Your task to perform on an android device: turn on sleep mode Image 0: 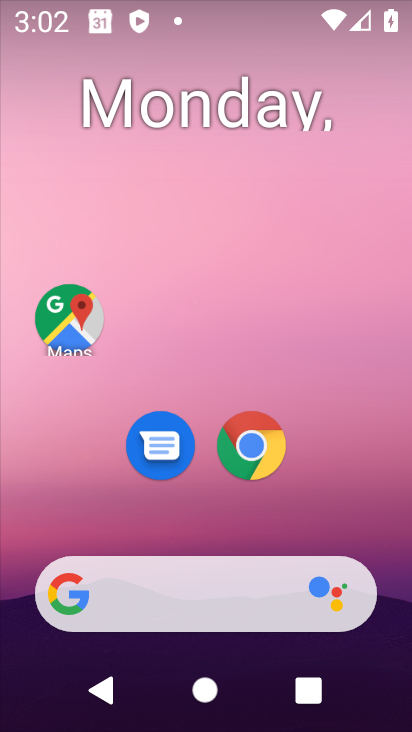
Step 0: drag from (315, 513) to (245, 119)
Your task to perform on an android device: turn on sleep mode Image 1: 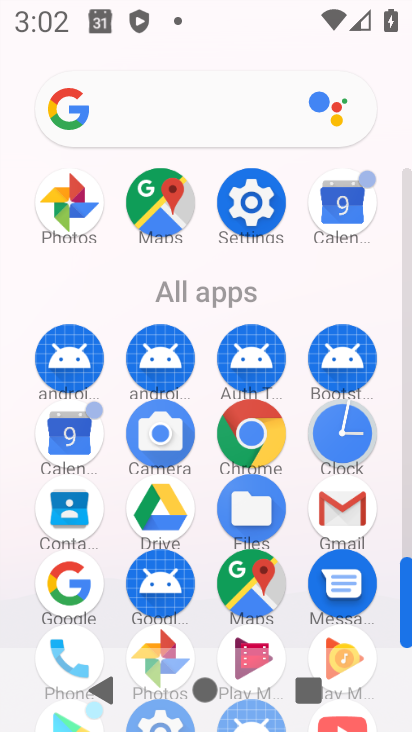
Step 1: click (236, 215)
Your task to perform on an android device: turn on sleep mode Image 2: 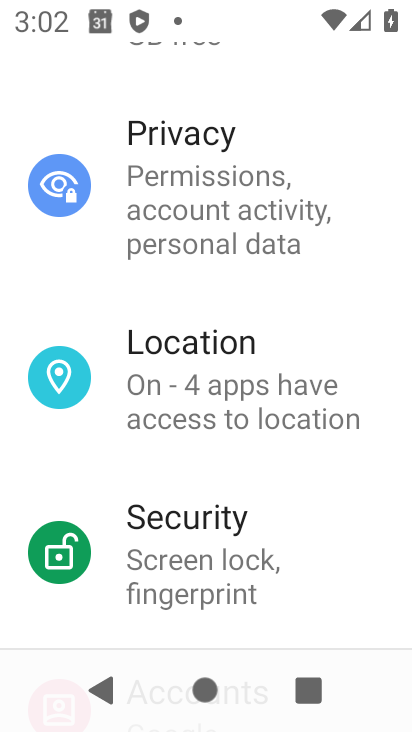
Step 2: drag from (210, 287) to (217, 141)
Your task to perform on an android device: turn on sleep mode Image 3: 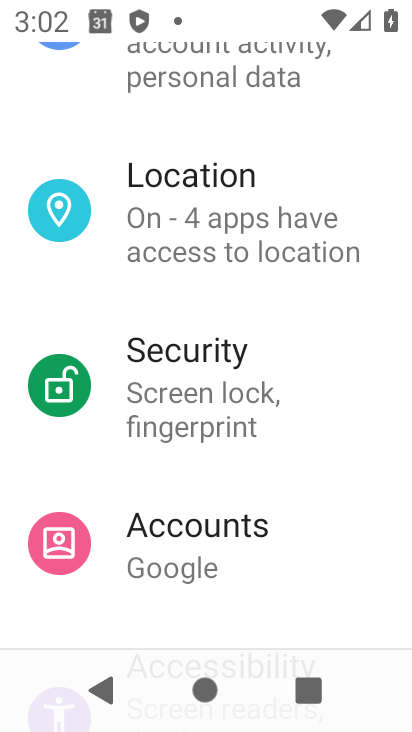
Step 3: drag from (194, 476) to (200, 351)
Your task to perform on an android device: turn on sleep mode Image 4: 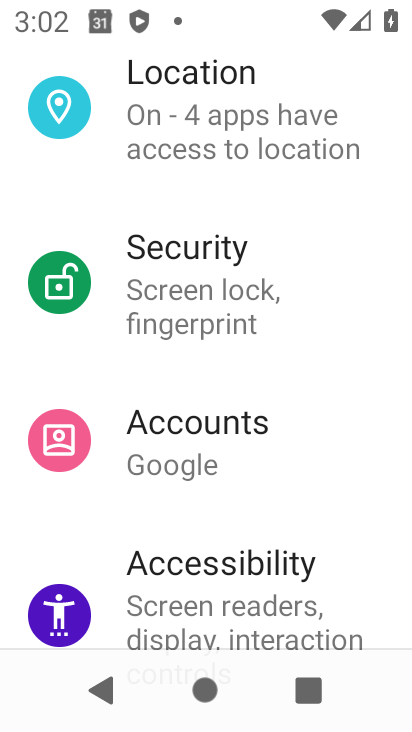
Step 4: drag from (186, 504) to (181, 372)
Your task to perform on an android device: turn on sleep mode Image 5: 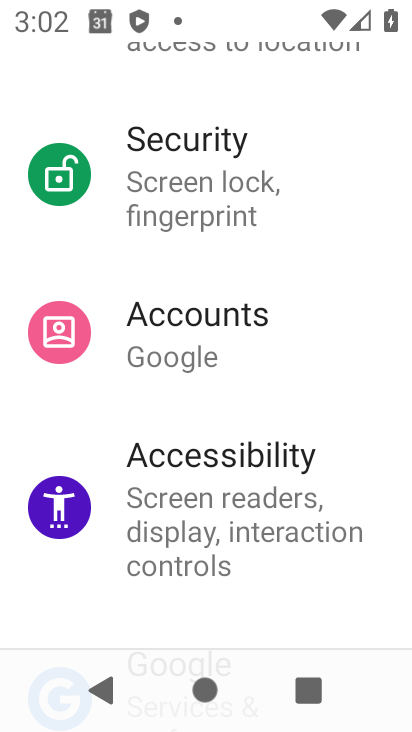
Step 5: drag from (241, 527) to (232, 412)
Your task to perform on an android device: turn on sleep mode Image 6: 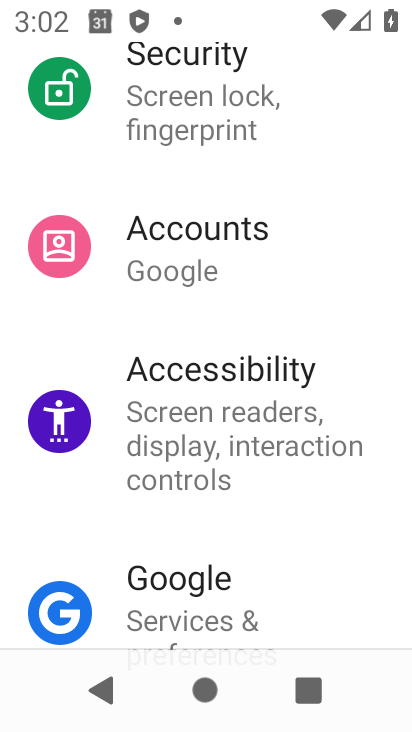
Step 6: drag from (196, 538) to (188, 377)
Your task to perform on an android device: turn on sleep mode Image 7: 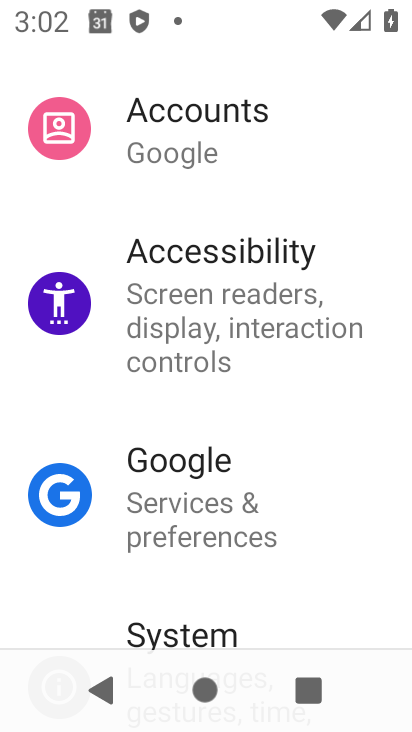
Step 7: drag from (185, 511) to (184, 377)
Your task to perform on an android device: turn on sleep mode Image 8: 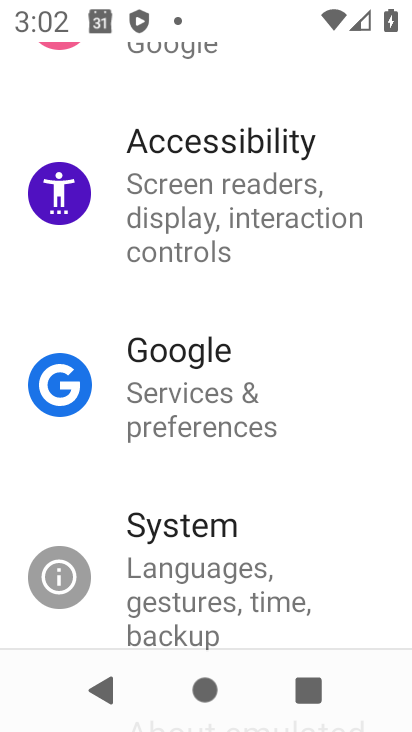
Step 8: drag from (216, 538) to (209, 415)
Your task to perform on an android device: turn on sleep mode Image 9: 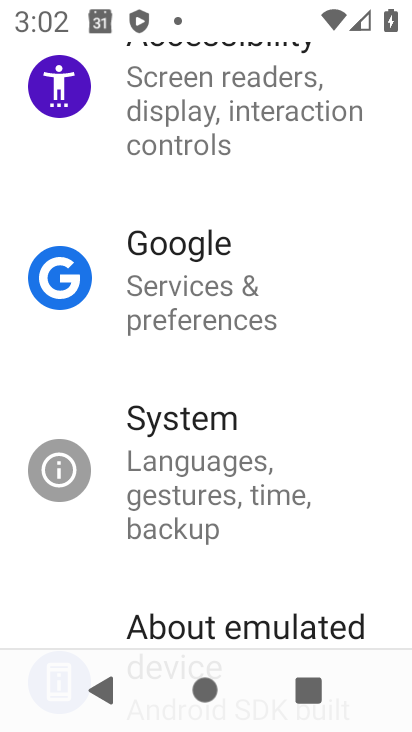
Step 9: drag from (224, 567) to (236, 362)
Your task to perform on an android device: turn on sleep mode Image 10: 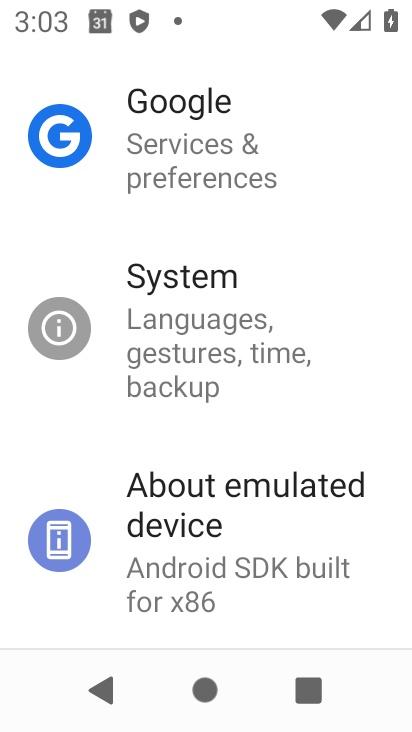
Step 10: drag from (217, 417) to (257, 542)
Your task to perform on an android device: turn on sleep mode Image 11: 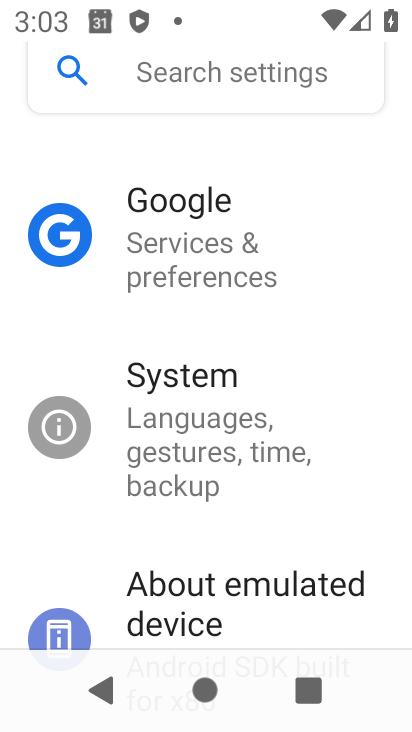
Step 11: drag from (221, 411) to (239, 540)
Your task to perform on an android device: turn on sleep mode Image 12: 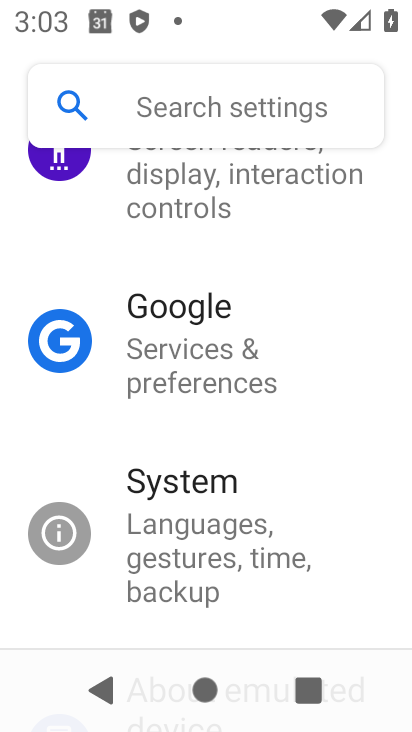
Step 12: drag from (225, 421) to (256, 557)
Your task to perform on an android device: turn on sleep mode Image 13: 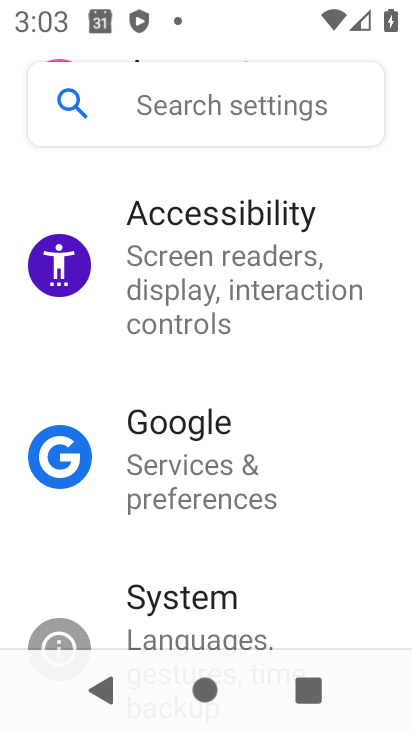
Step 13: drag from (237, 456) to (270, 601)
Your task to perform on an android device: turn on sleep mode Image 14: 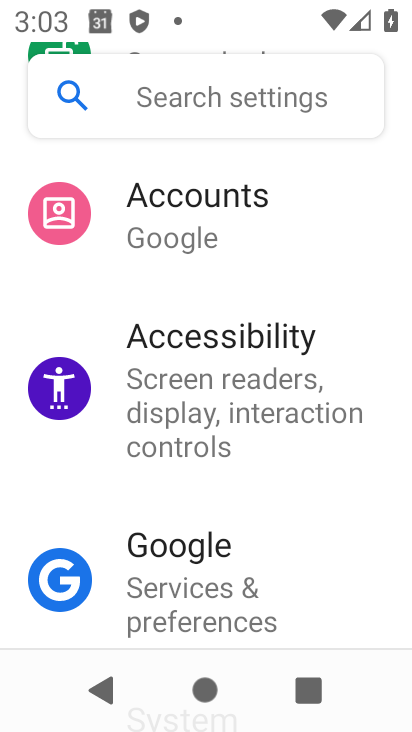
Step 14: drag from (240, 398) to (261, 492)
Your task to perform on an android device: turn on sleep mode Image 15: 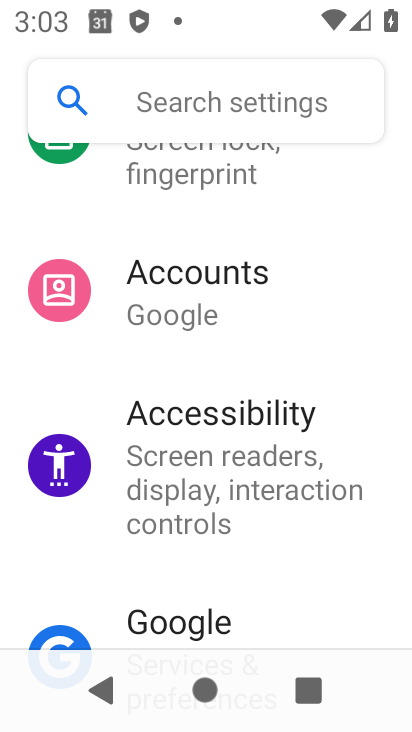
Step 15: drag from (256, 397) to (269, 477)
Your task to perform on an android device: turn on sleep mode Image 16: 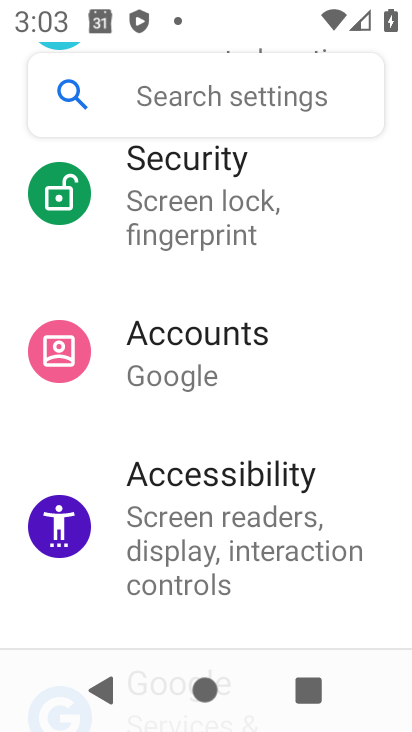
Step 16: drag from (250, 339) to (276, 457)
Your task to perform on an android device: turn on sleep mode Image 17: 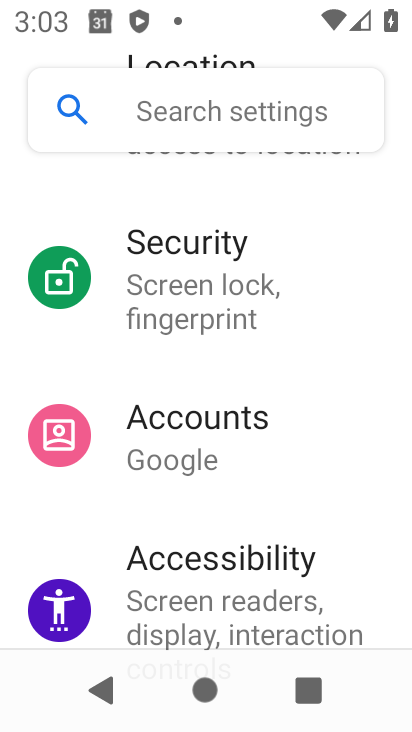
Step 17: drag from (253, 357) to (263, 461)
Your task to perform on an android device: turn on sleep mode Image 18: 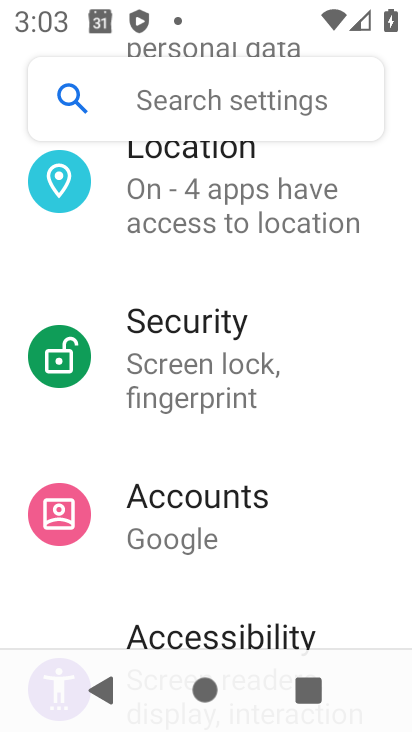
Step 18: drag from (252, 339) to (292, 432)
Your task to perform on an android device: turn on sleep mode Image 19: 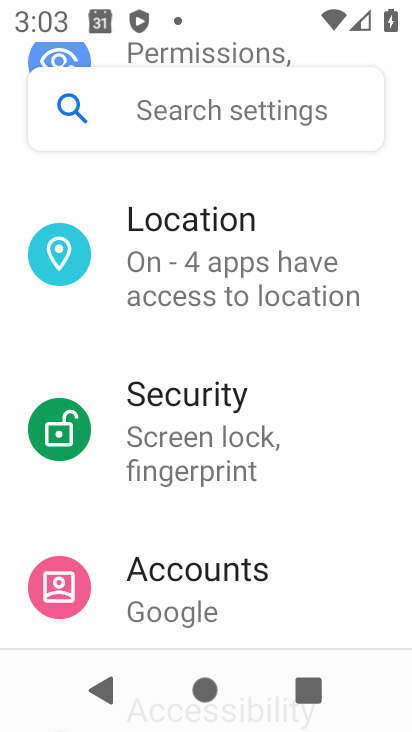
Step 19: drag from (244, 322) to (289, 435)
Your task to perform on an android device: turn on sleep mode Image 20: 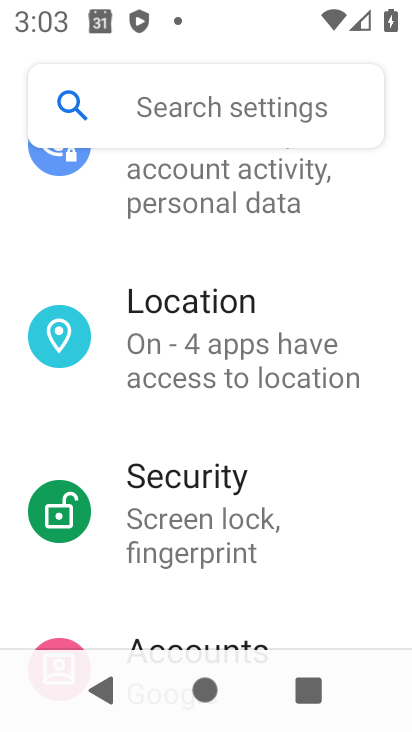
Step 20: drag from (241, 307) to (270, 482)
Your task to perform on an android device: turn on sleep mode Image 21: 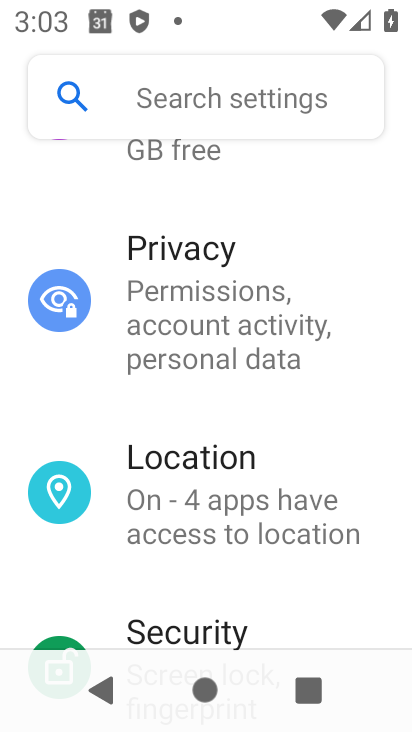
Step 21: drag from (260, 313) to (264, 434)
Your task to perform on an android device: turn on sleep mode Image 22: 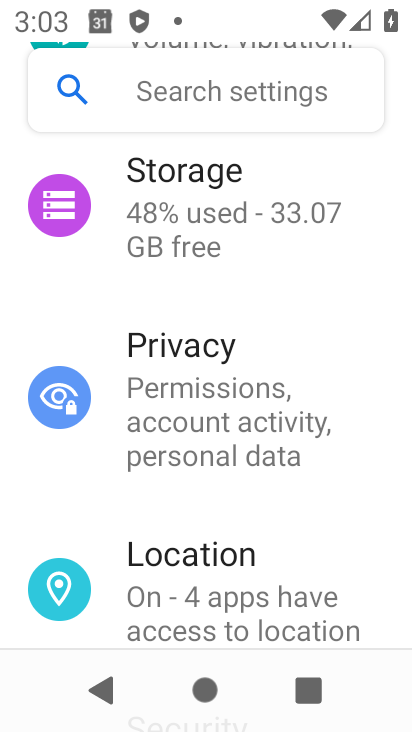
Step 22: drag from (226, 326) to (257, 461)
Your task to perform on an android device: turn on sleep mode Image 23: 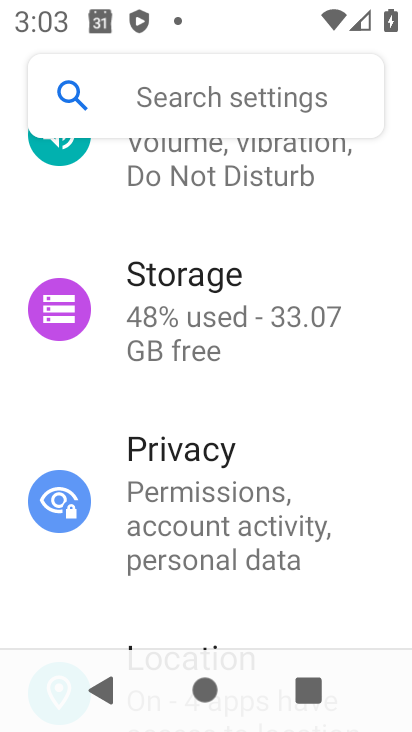
Step 23: drag from (235, 289) to (249, 451)
Your task to perform on an android device: turn on sleep mode Image 24: 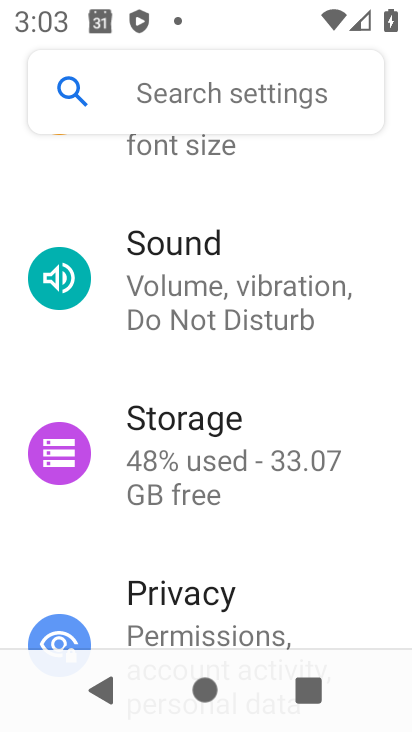
Step 24: drag from (219, 307) to (240, 421)
Your task to perform on an android device: turn on sleep mode Image 25: 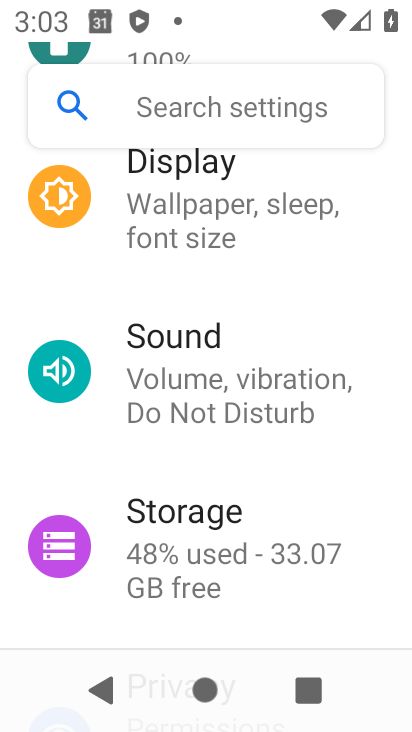
Step 25: drag from (226, 319) to (259, 422)
Your task to perform on an android device: turn on sleep mode Image 26: 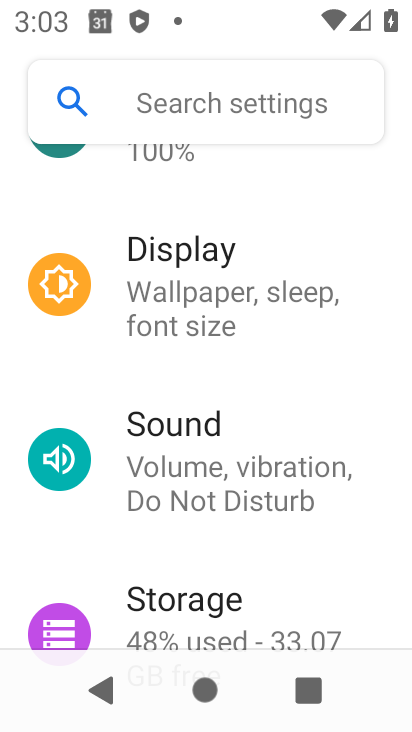
Step 26: drag from (250, 294) to (264, 438)
Your task to perform on an android device: turn on sleep mode Image 27: 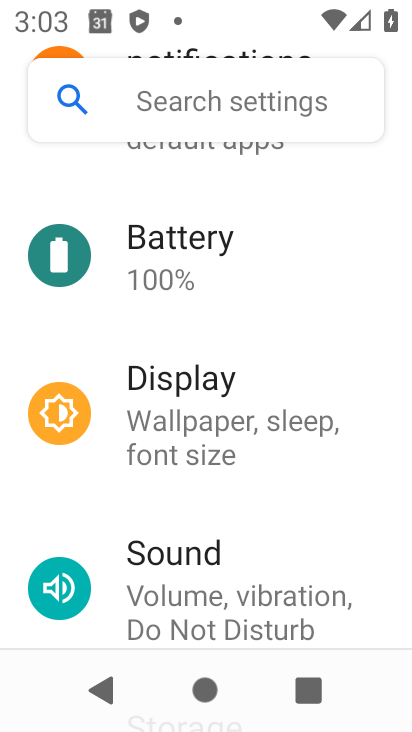
Step 27: drag from (269, 296) to (285, 418)
Your task to perform on an android device: turn on sleep mode Image 28: 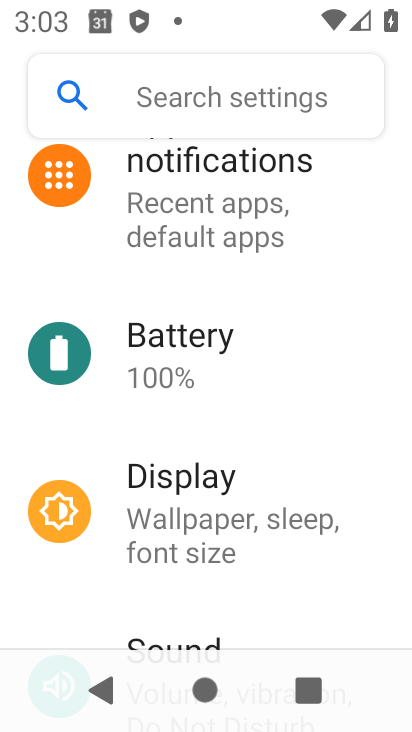
Step 28: drag from (277, 248) to (286, 483)
Your task to perform on an android device: turn on sleep mode Image 29: 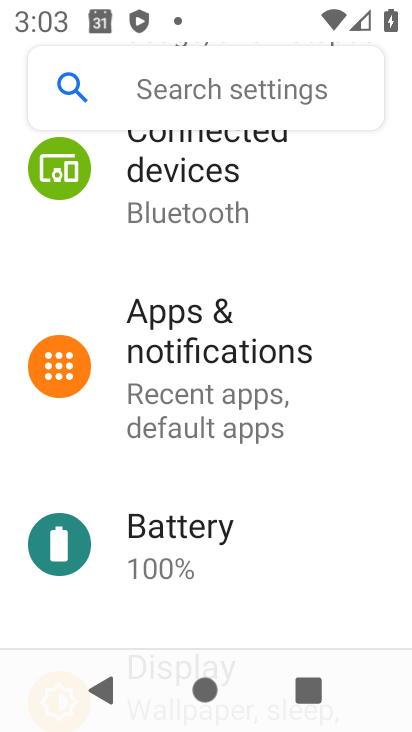
Step 29: drag from (336, 260) to (344, 476)
Your task to perform on an android device: turn on sleep mode Image 30: 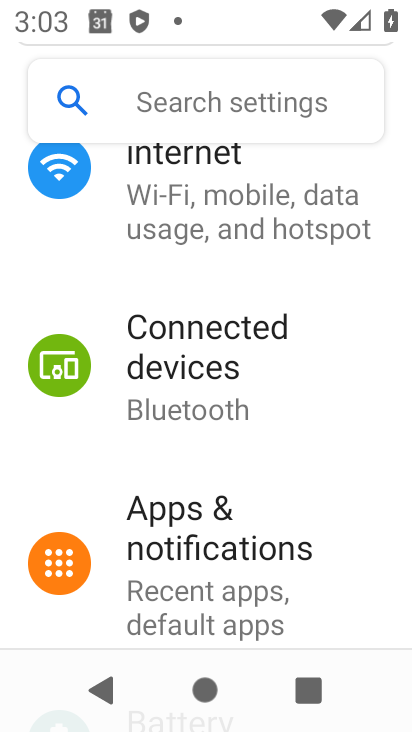
Step 30: drag from (306, 269) to (363, 116)
Your task to perform on an android device: turn on sleep mode Image 31: 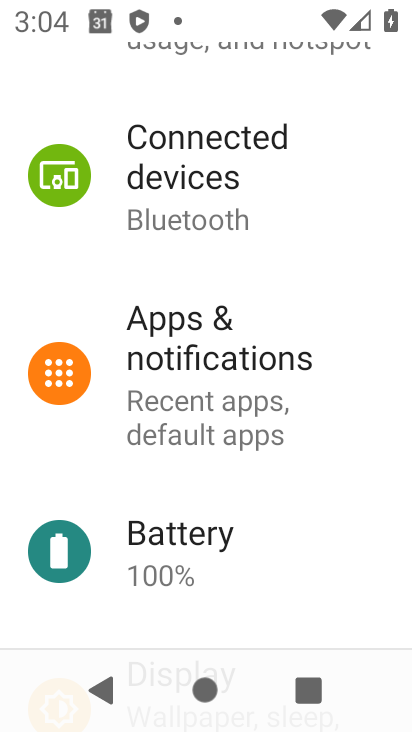
Step 31: drag from (259, 538) to (306, 136)
Your task to perform on an android device: turn on sleep mode Image 32: 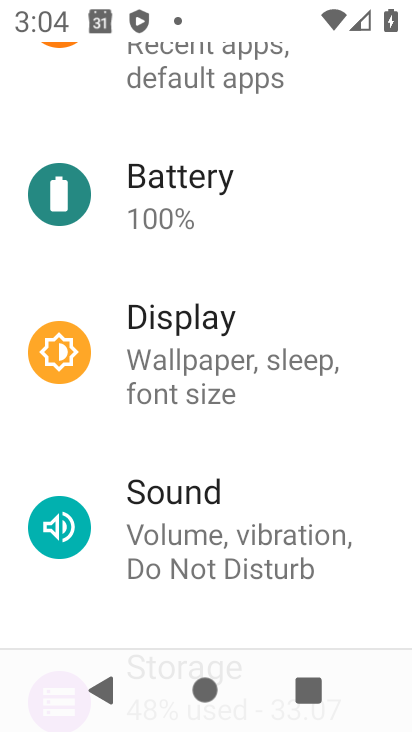
Step 32: click (255, 391)
Your task to perform on an android device: turn on sleep mode Image 33: 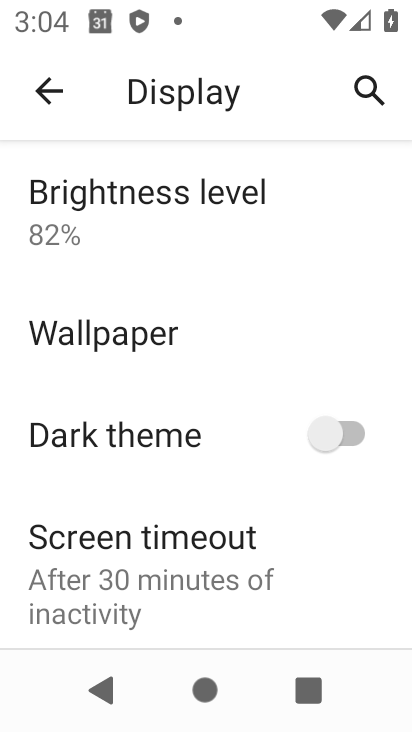
Step 33: drag from (163, 546) to (206, 202)
Your task to perform on an android device: turn on sleep mode Image 34: 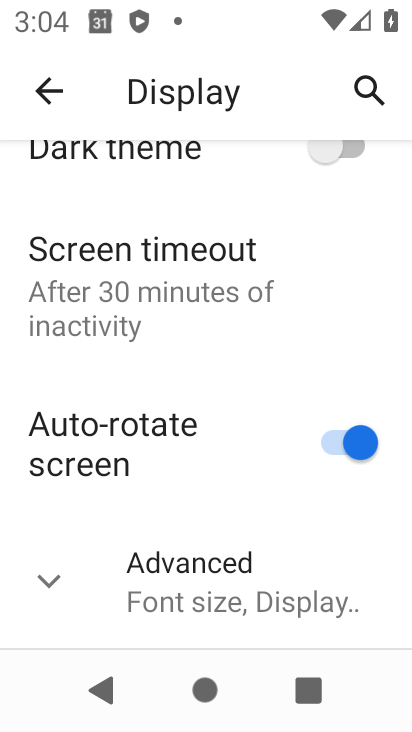
Step 34: click (228, 602)
Your task to perform on an android device: turn on sleep mode Image 35: 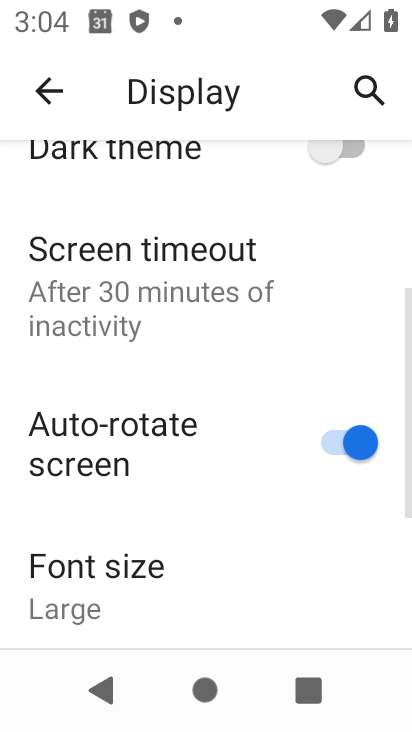
Step 35: task complete